Your task to perform on an android device: set the stopwatch Image 0: 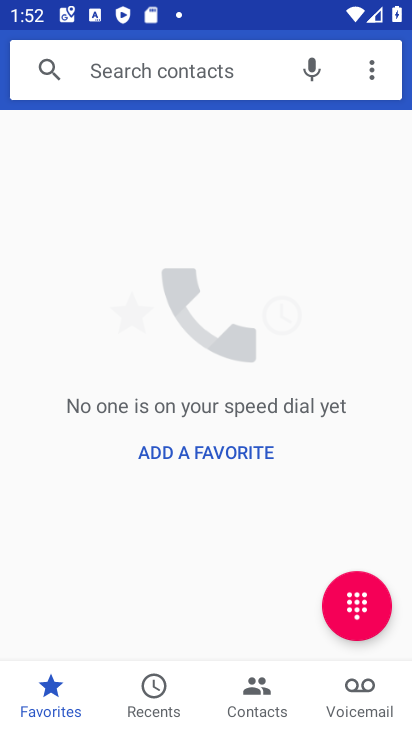
Step 0: press home button
Your task to perform on an android device: set the stopwatch Image 1: 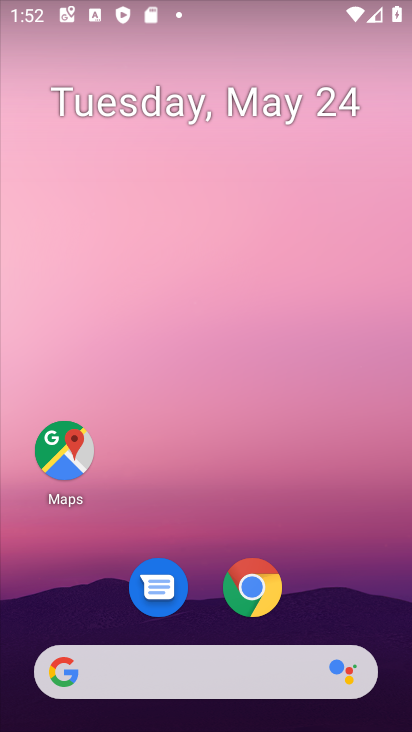
Step 1: drag from (242, 714) to (227, 125)
Your task to perform on an android device: set the stopwatch Image 2: 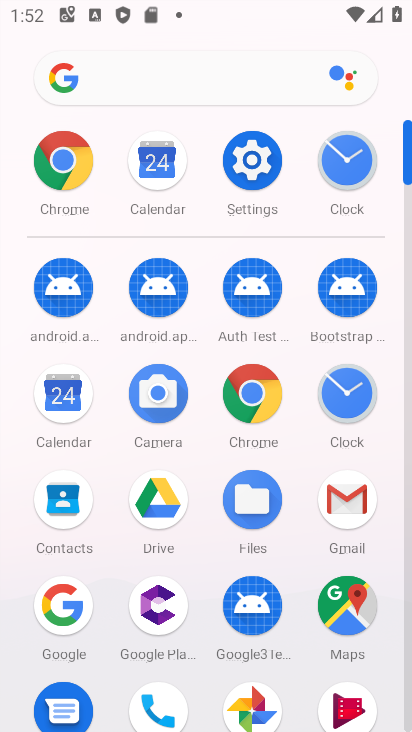
Step 2: click (367, 159)
Your task to perform on an android device: set the stopwatch Image 3: 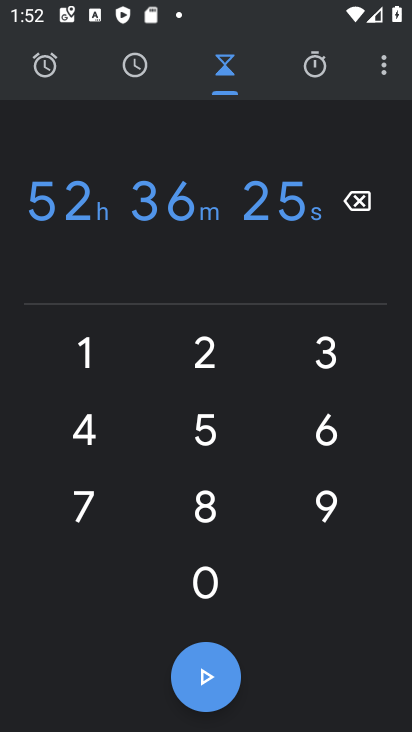
Step 3: click (314, 82)
Your task to perform on an android device: set the stopwatch Image 4: 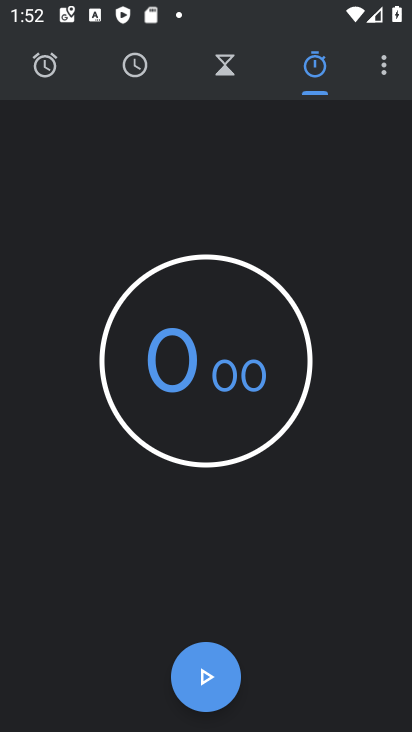
Step 4: task complete